Your task to perform on an android device: Open location settings Image 0: 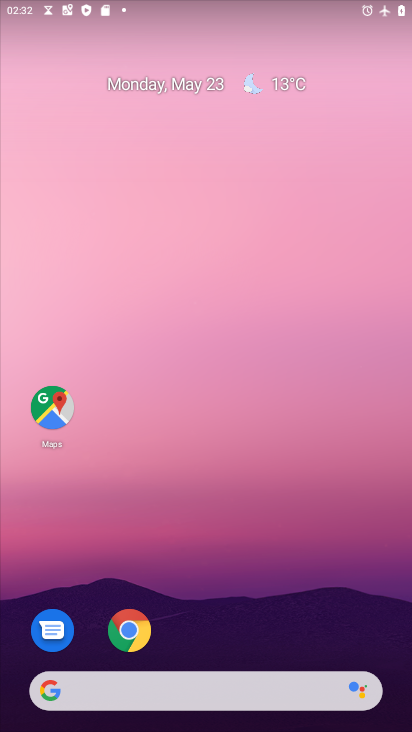
Step 0: click (125, 636)
Your task to perform on an android device: Open location settings Image 1: 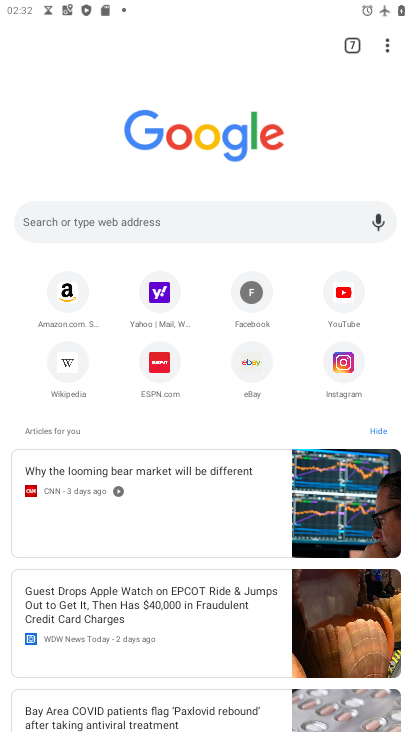
Step 1: press home button
Your task to perform on an android device: Open location settings Image 2: 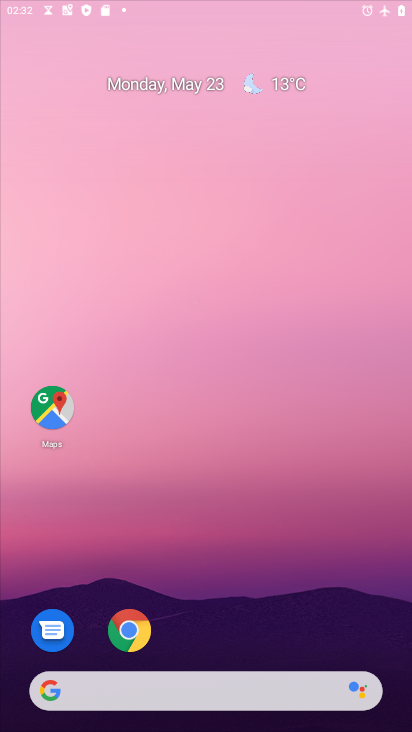
Step 2: drag from (300, 536) to (183, 30)
Your task to perform on an android device: Open location settings Image 3: 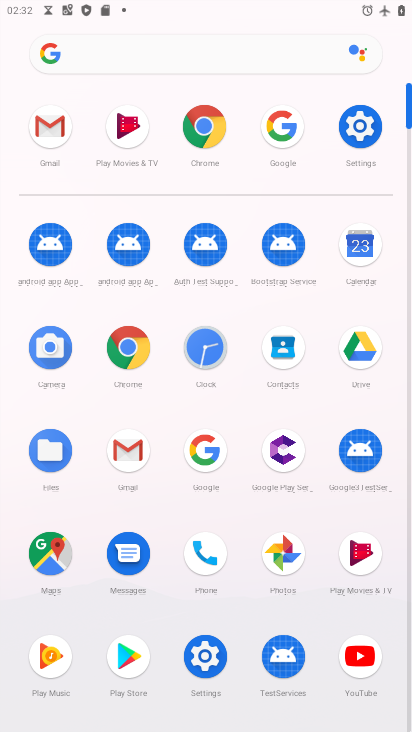
Step 3: click (364, 132)
Your task to perform on an android device: Open location settings Image 4: 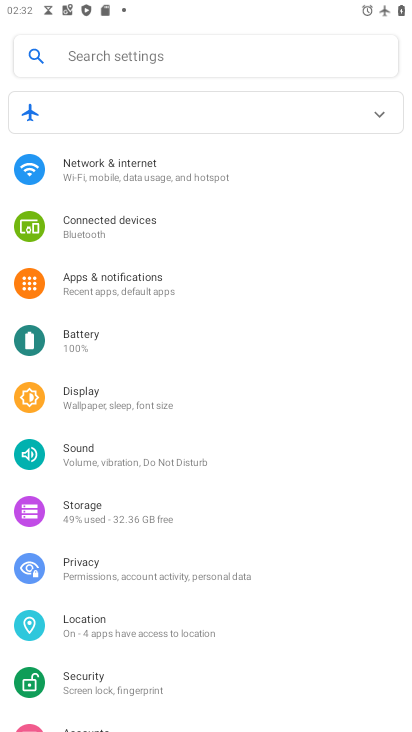
Step 4: click (149, 617)
Your task to perform on an android device: Open location settings Image 5: 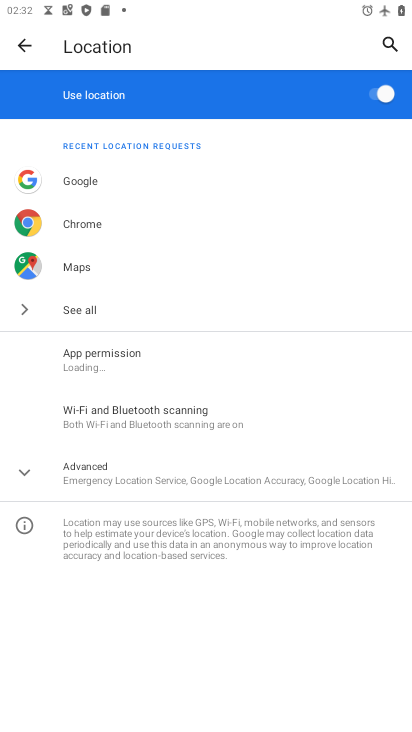
Step 5: task complete